Your task to perform on an android device: Open the Play Movies app and select the watchlist tab. Image 0: 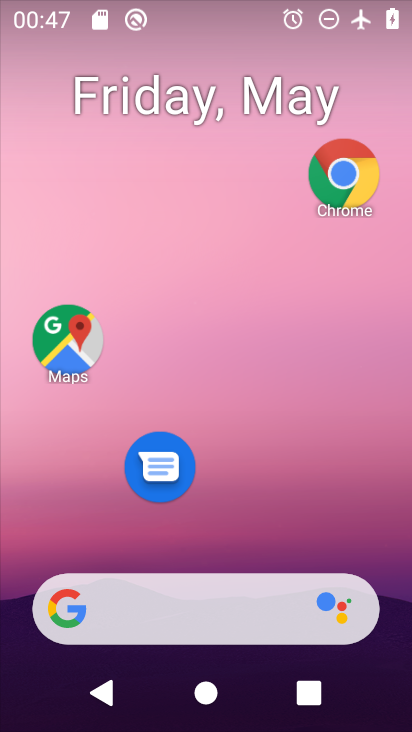
Step 0: drag from (278, 468) to (254, 154)
Your task to perform on an android device: Open the Play Movies app and select the watchlist tab. Image 1: 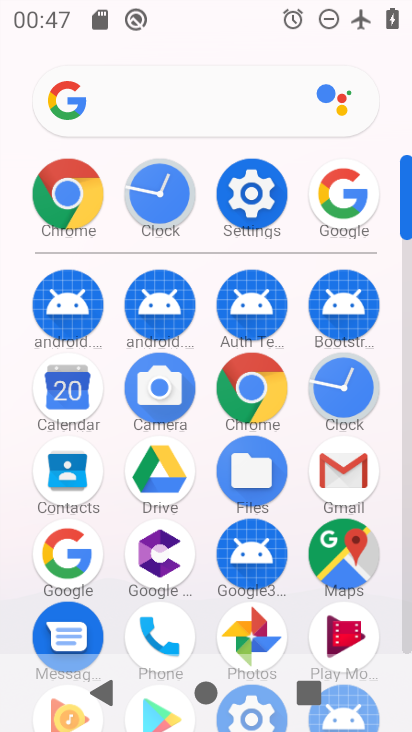
Step 1: click (336, 628)
Your task to perform on an android device: Open the Play Movies app and select the watchlist tab. Image 2: 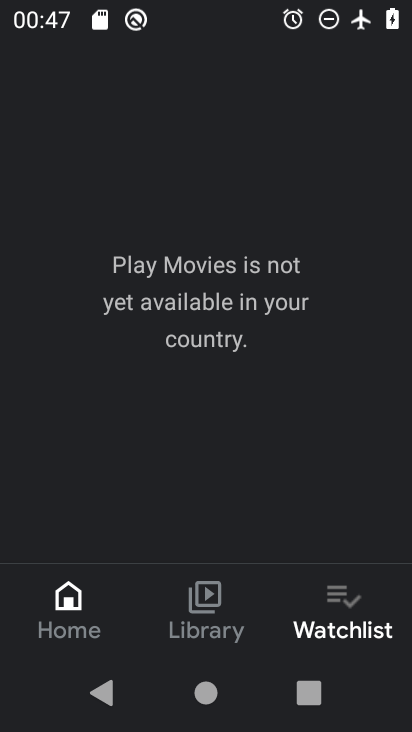
Step 2: click (332, 614)
Your task to perform on an android device: Open the Play Movies app and select the watchlist tab. Image 3: 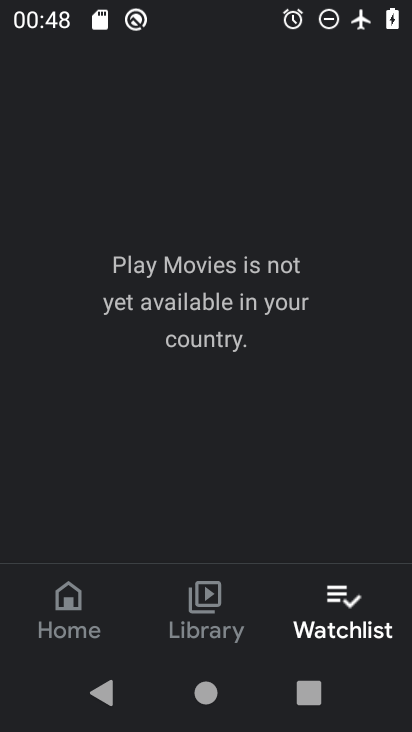
Step 3: task complete